Your task to perform on an android device: Search for seafood restaurants on Google Maps Image 0: 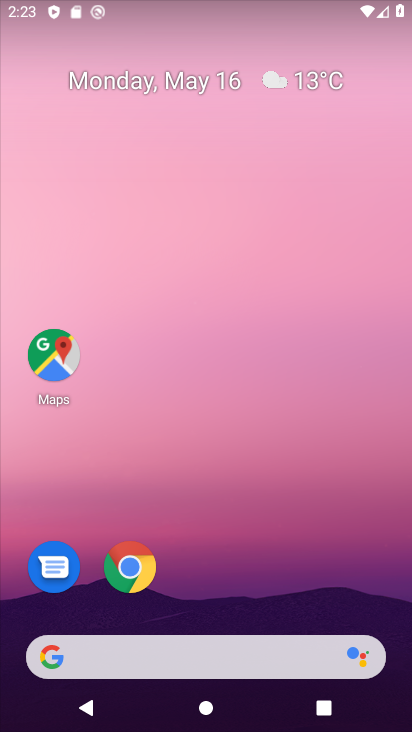
Step 0: click (56, 363)
Your task to perform on an android device: Search for seafood restaurants on Google Maps Image 1: 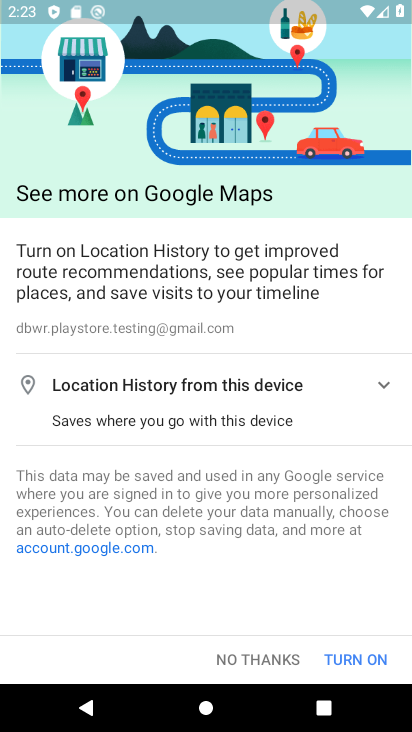
Step 1: click (260, 653)
Your task to perform on an android device: Search for seafood restaurants on Google Maps Image 2: 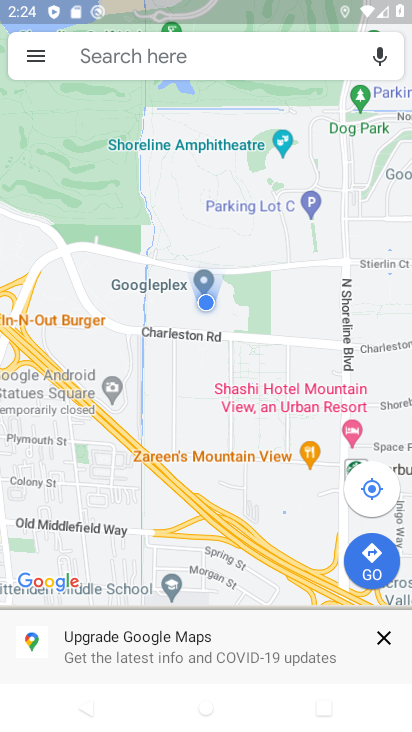
Step 2: click (150, 51)
Your task to perform on an android device: Search for seafood restaurants on Google Maps Image 3: 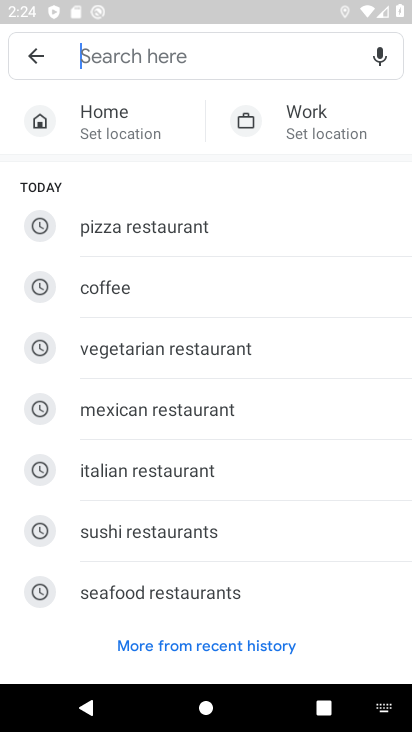
Step 3: type "seafood restaurants"
Your task to perform on an android device: Search for seafood restaurants on Google Maps Image 4: 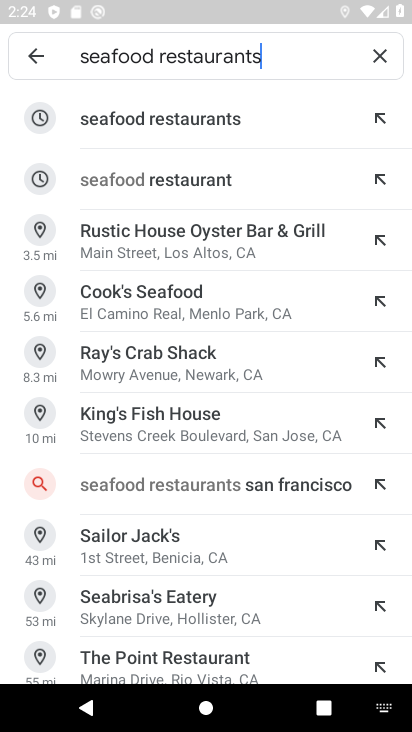
Step 4: click (200, 114)
Your task to perform on an android device: Search for seafood restaurants on Google Maps Image 5: 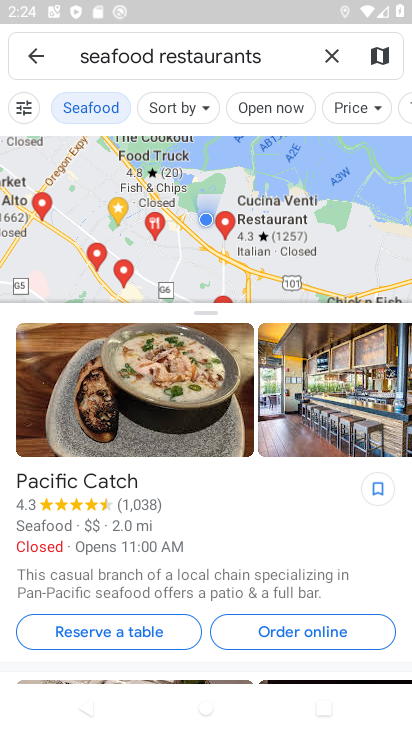
Step 5: task complete